Your task to perform on an android device: Go to Google Image 0: 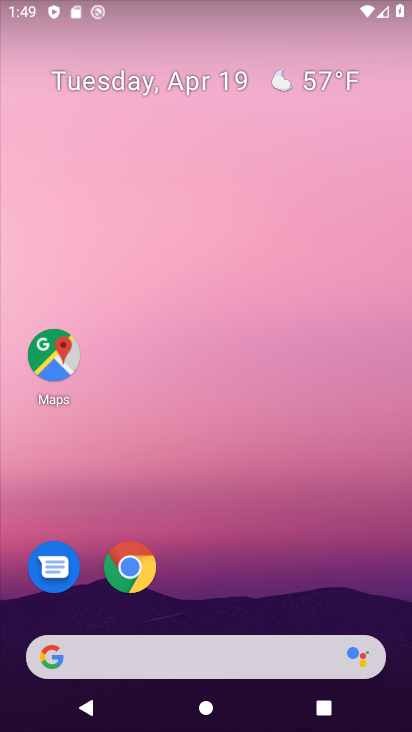
Step 0: drag from (202, 412) to (232, 109)
Your task to perform on an android device: Go to Google Image 1: 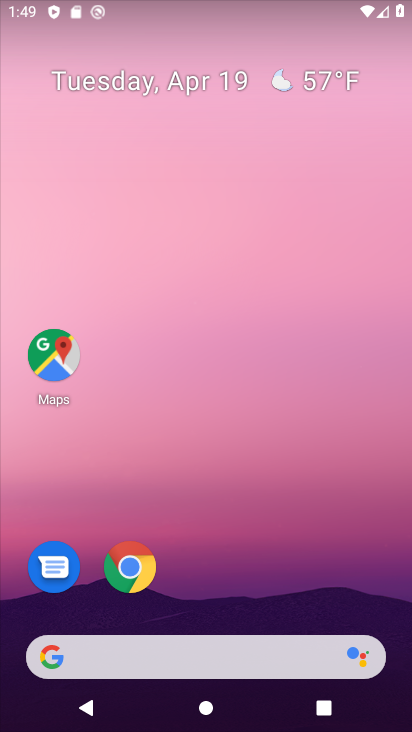
Step 1: drag from (216, 457) to (228, 68)
Your task to perform on an android device: Go to Google Image 2: 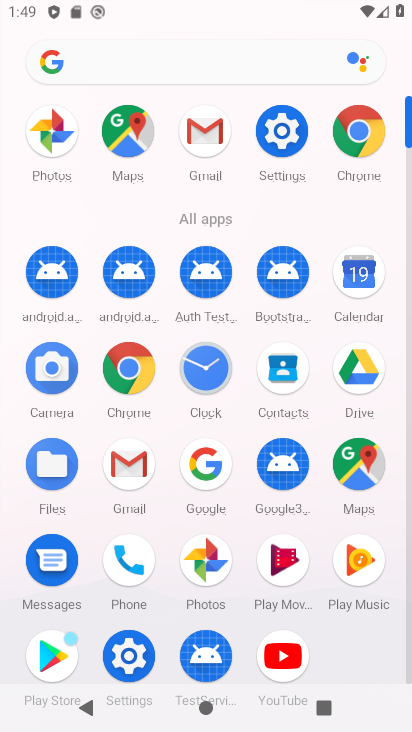
Step 2: click (206, 470)
Your task to perform on an android device: Go to Google Image 3: 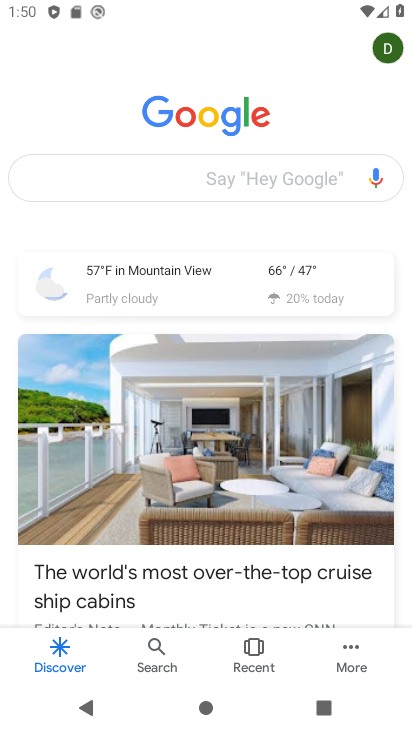
Step 3: task complete